Your task to perform on an android device: toggle show notifications on the lock screen Image 0: 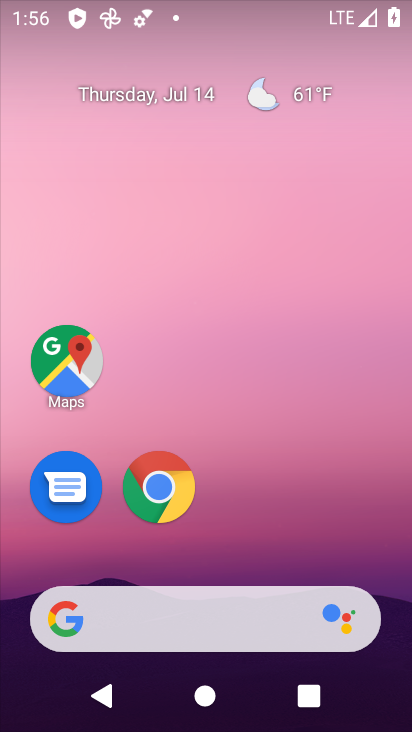
Step 0: drag from (318, 530) to (325, 133)
Your task to perform on an android device: toggle show notifications on the lock screen Image 1: 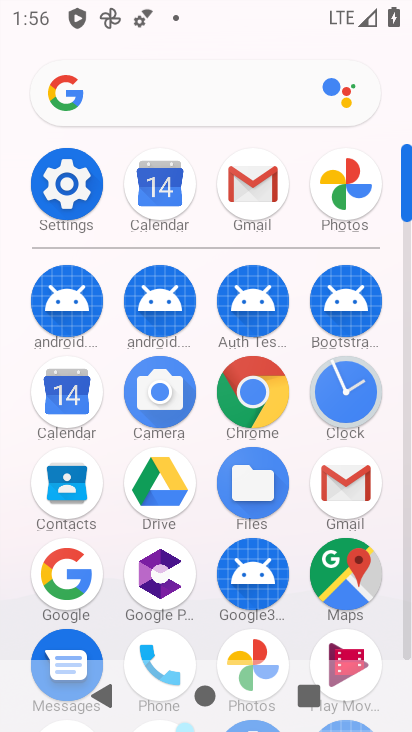
Step 1: click (73, 206)
Your task to perform on an android device: toggle show notifications on the lock screen Image 2: 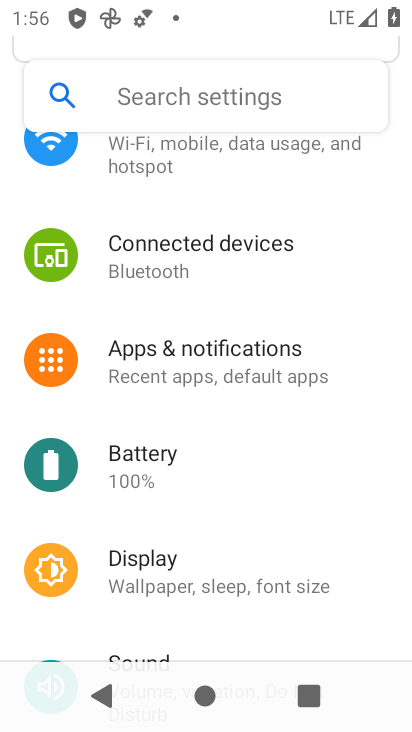
Step 2: drag from (309, 517) to (327, 330)
Your task to perform on an android device: toggle show notifications on the lock screen Image 3: 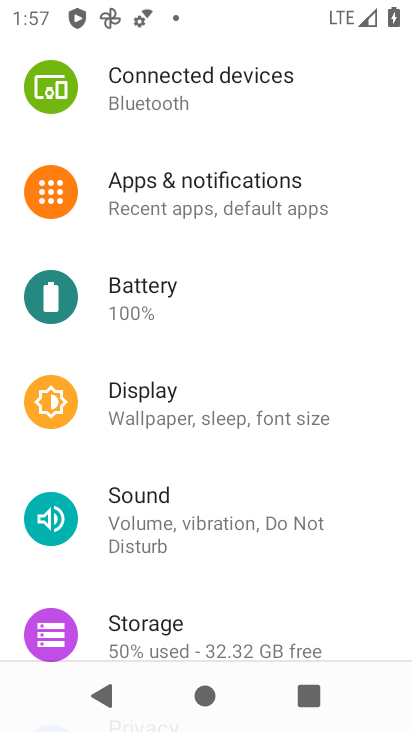
Step 3: drag from (361, 526) to (360, 374)
Your task to perform on an android device: toggle show notifications on the lock screen Image 4: 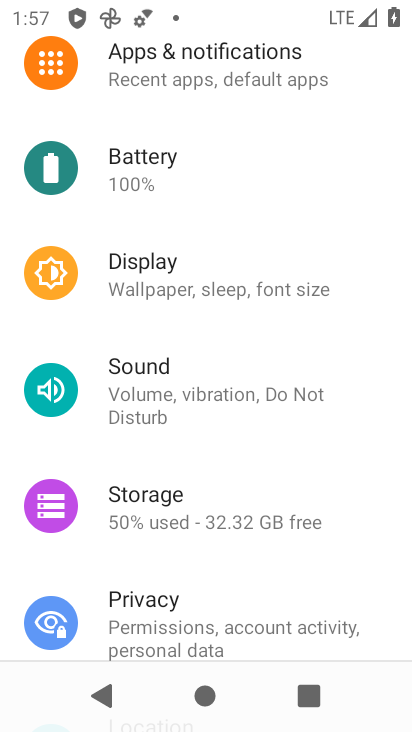
Step 4: drag from (367, 550) to (369, 398)
Your task to perform on an android device: toggle show notifications on the lock screen Image 5: 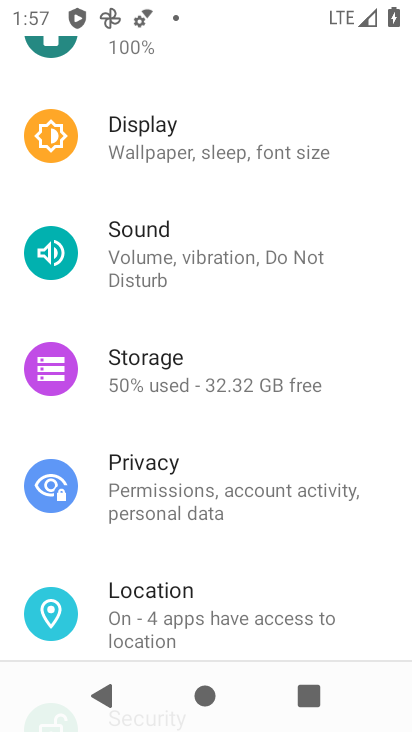
Step 5: drag from (353, 586) to (365, 493)
Your task to perform on an android device: toggle show notifications on the lock screen Image 6: 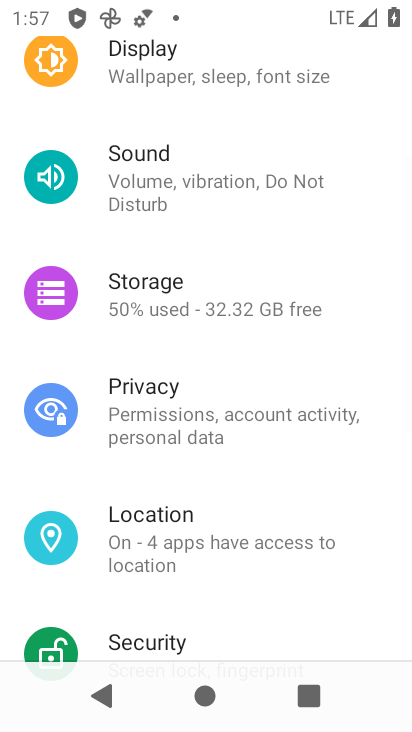
Step 6: drag from (363, 594) to (365, 474)
Your task to perform on an android device: toggle show notifications on the lock screen Image 7: 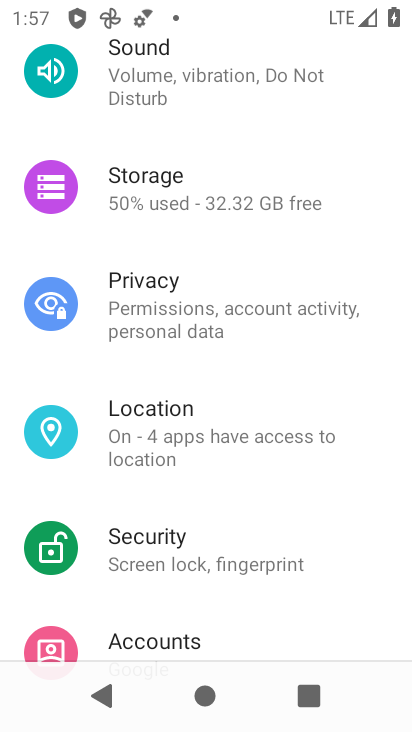
Step 7: drag from (348, 559) to (381, 269)
Your task to perform on an android device: toggle show notifications on the lock screen Image 8: 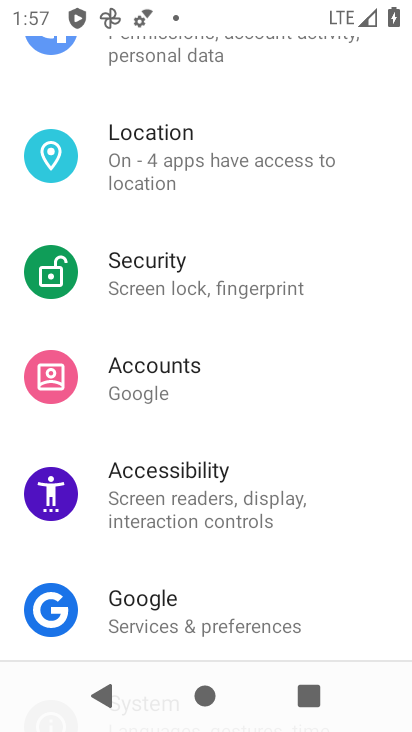
Step 8: drag from (351, 214) to (344, 386)
Your task to perform on an android device: toggle show notifications on the lock screen Image 9: 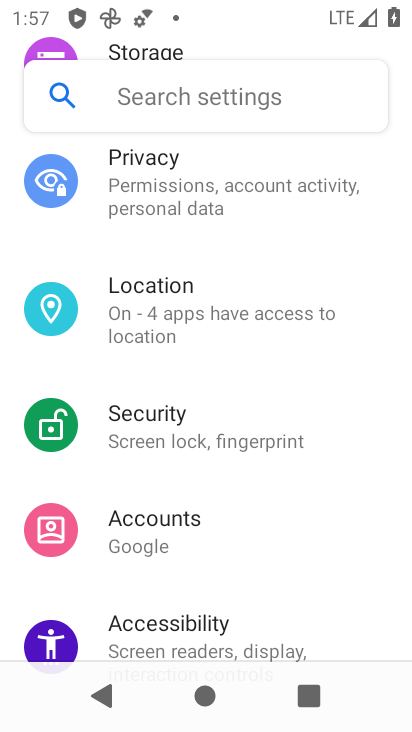
Step 9: drag from (357, 245) to (358, 349)
Your task to perform on an android device: toggle show notifications on the lock screen Image 10: 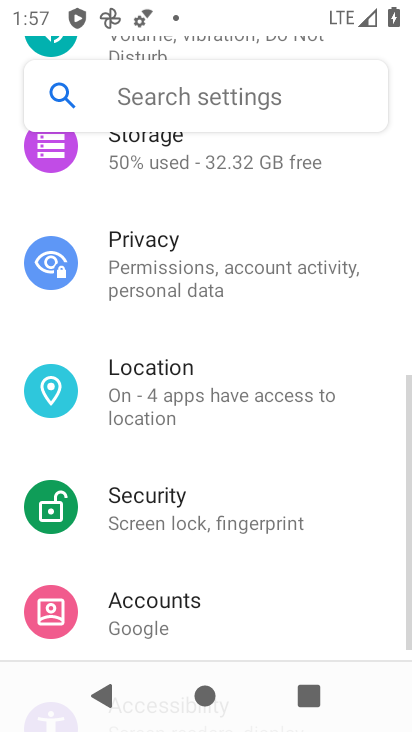
Step 10: drag from (366, 220) to (366, 321)
Your task to perform on an android device: toggle show notifications on the lock screen Image 11: 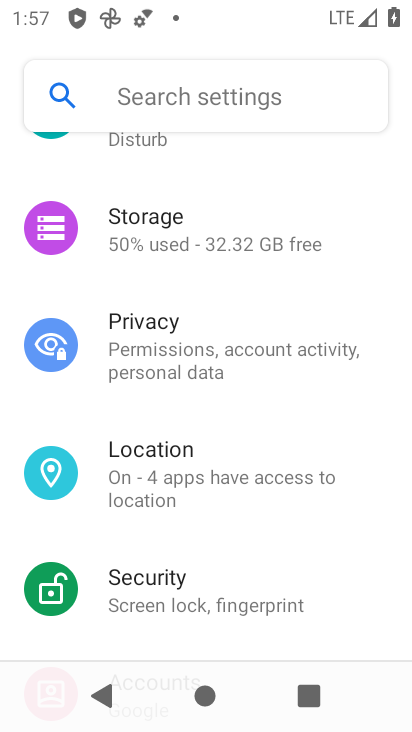
Step 11: drag from (366, 246) to (367, 349)
Your task to perform on an android device: toggle show notifications on the lock screen Image 12: 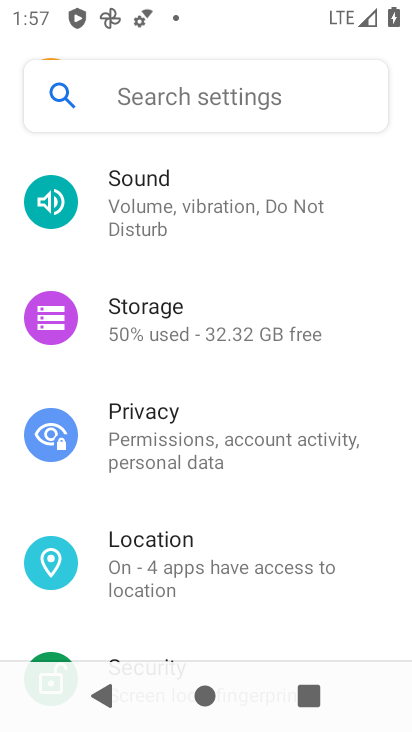
Step 12: drag from (356, 223) to (359, 299)
Your task to perform on an android device: toggle show notifications on the lock screen Image 13: 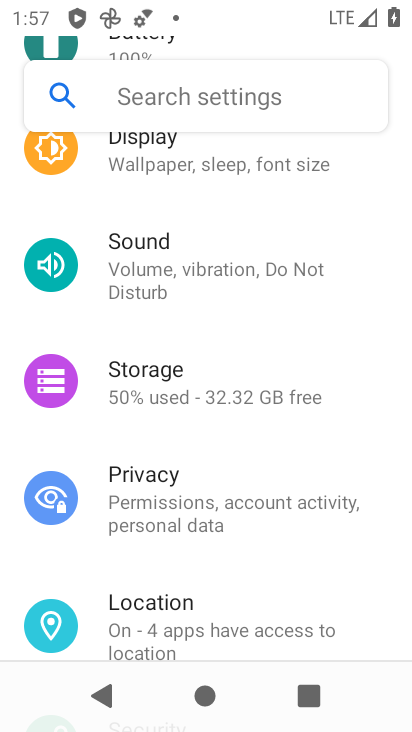
Step 13: drag from (358, 226) to (359, 328)
Your task to perform on an android device: toggle show notifications on the lock screen Image 14: 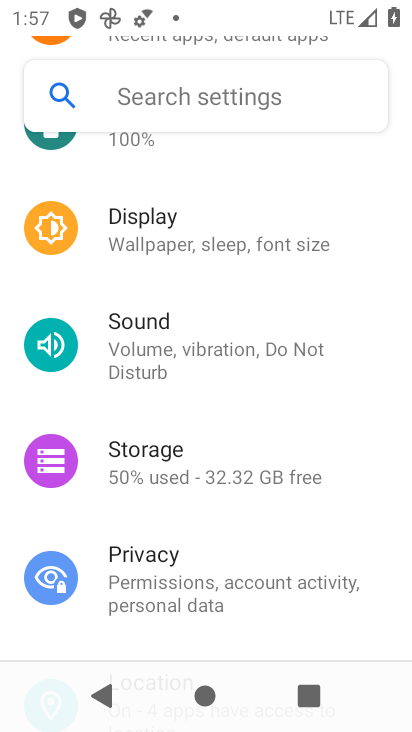
Step 14: drag from (348, 259) to (349, 420)
Your task to perform on an android device: toggle show notifications on the lock screen Image 15: 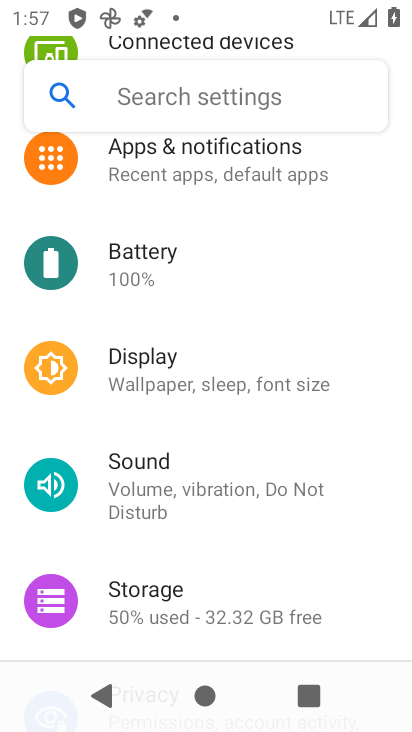
Step 15: drag from (357, 319) to (358, 422)
Your task to perform on an android device: toggle show notifications on the lock screen Image 16: 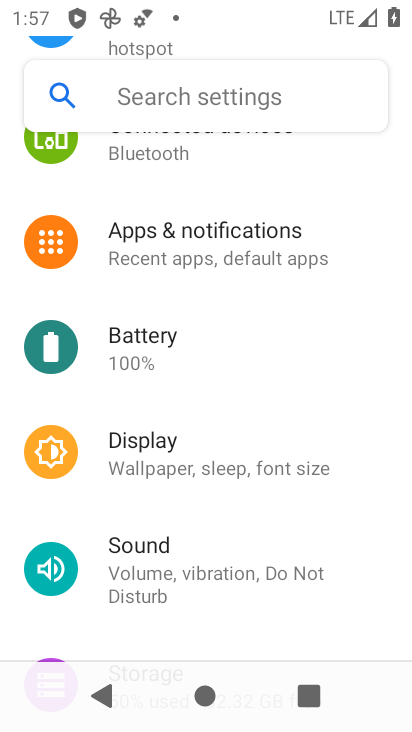
Step 16: drag from (346, 275) to (347, 394)
Your task to perform on an android device: toggle show notifications on the lock screen Image 17: 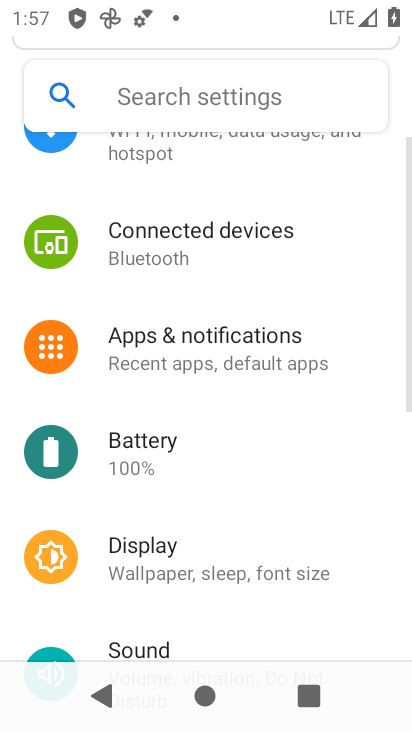
Step 17: click (309, 342)
Your task to perform on an android device: toggle show notifications on the lock screen Image 18: 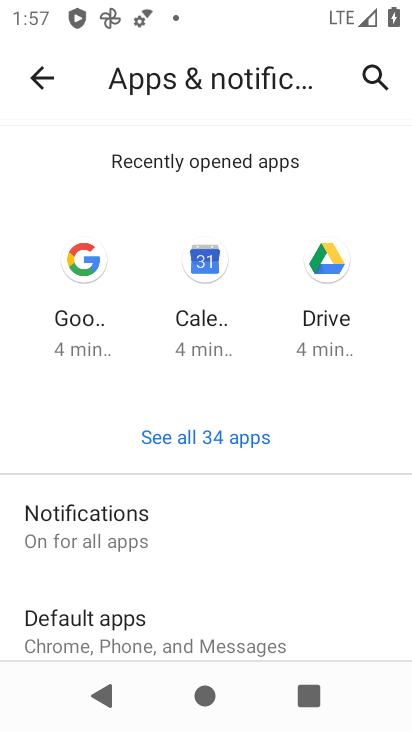
Step 18: click (257, 519)
Your task to perform on an android device: toggle show notifications on the lock screen Image 19: 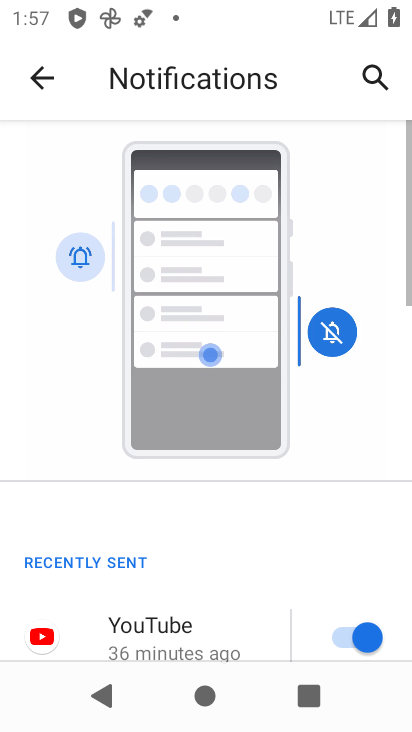
Step 19: drag from (275, 546) to (297, 395)
Your task to perform on an android device: toggle show notifications on the lock screen Image 20: 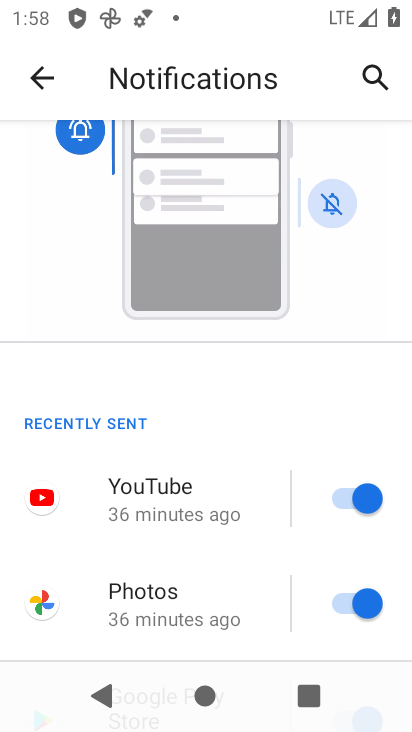
Step 20: drag from (255, 582) to (271, 482)
Your task to perform on an android device: toggle show notifications on the lock screen Image 21: 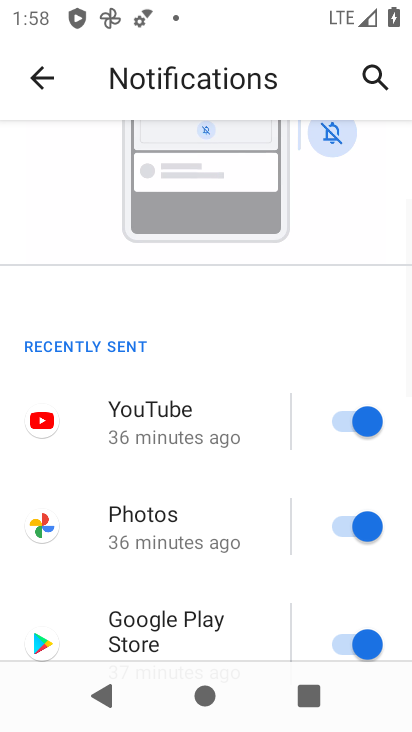
Step 21: drag from (239, 584) to (259, 503)
Your task to perform on an android device: toggle show notifications on the lock screen Image 22: 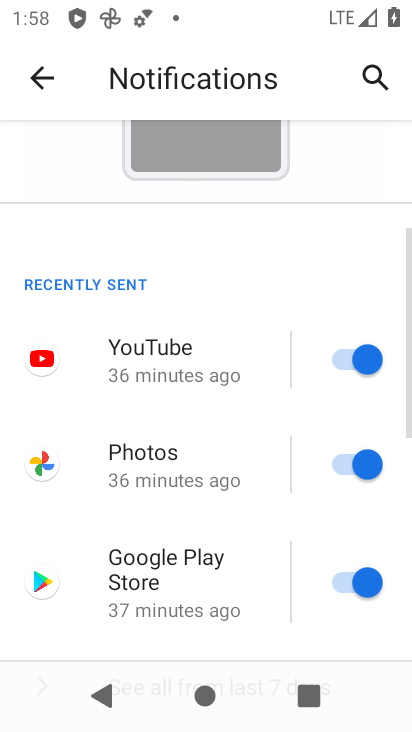
Step 22: drag from (262, 588) to (274, 453)
Your task to perform on an android device: toggle show notifications on the lock screen Image 23: 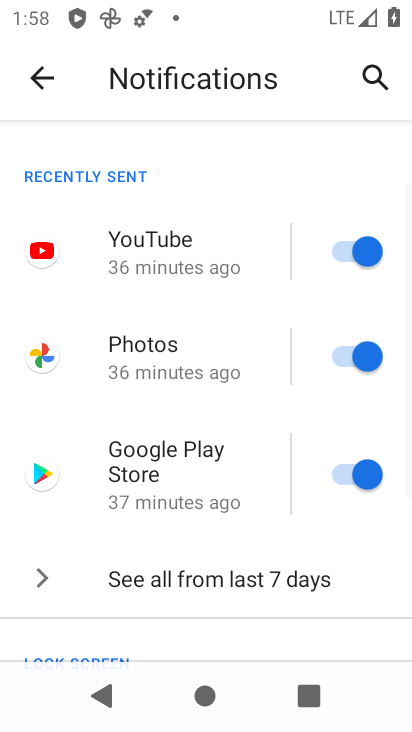
Step 23: drag from (244, 617) to (260, 480)
Your task to perform on an android device: toggle show notifications on the lock screen Image 24: 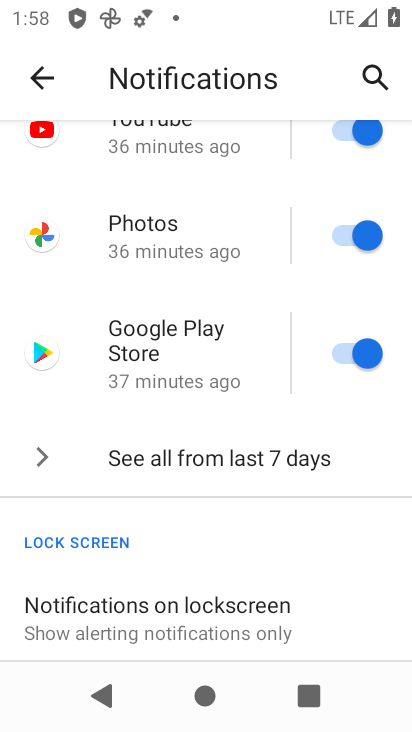
Step 24: drag from (261, 559) to (271, 465)
Your task to perform on an android device: toggle show notifications on the lock screen Image 25: 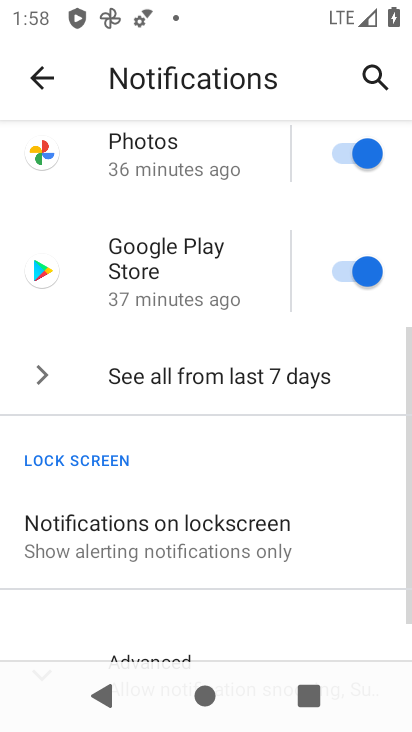
Step 25: click (260, 546)
Your task to perform on an android device: toggle show notifications on the lock screen Image 26: 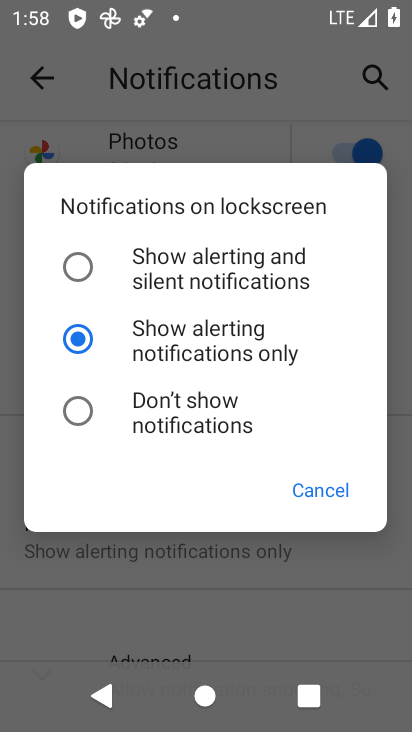
Step 26: click (171, 286)
Your task to perform on an android device: toggle show notifications on the lock screen Image 27: 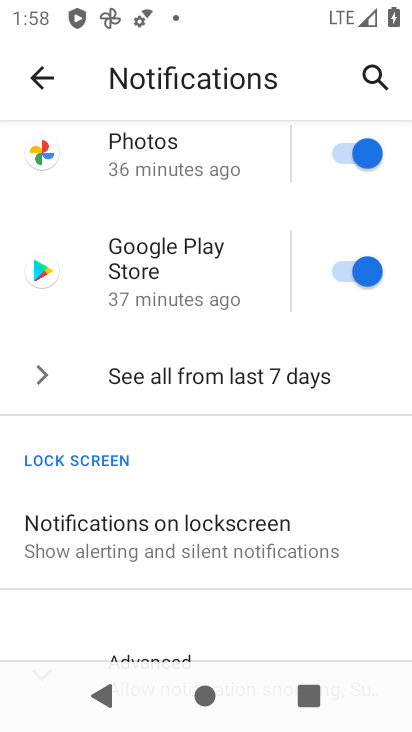
Step 27: task complete